Your task to perform on an android device: clear all cookies in the chrome app Image 0: 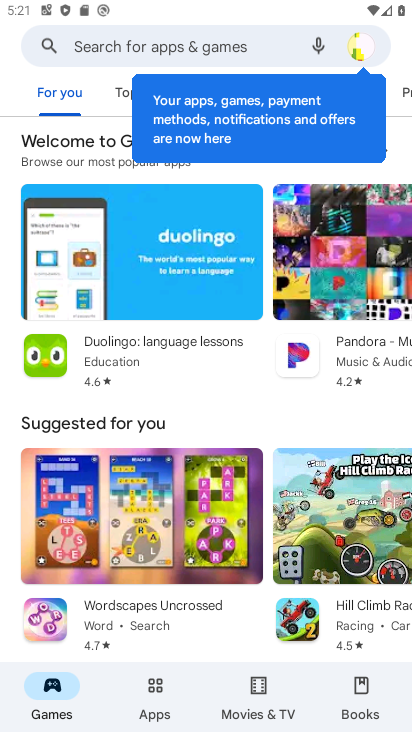
Step 0: press home button
Your task to perform on an android device: clear all cookies in the chrome app Image 1: 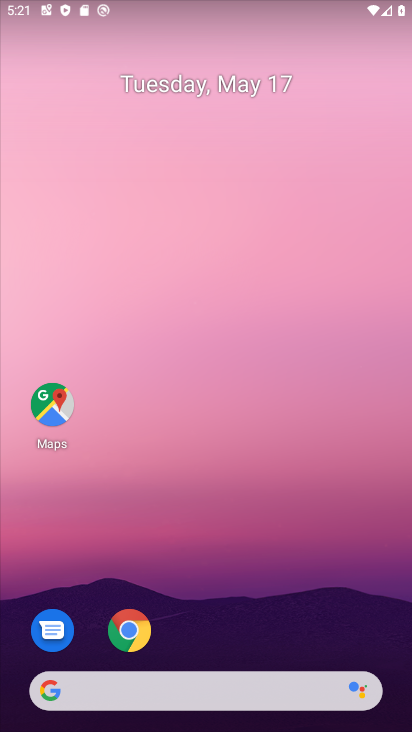
Step 1: click (142, 624)
Your task to perform on an android device: clear all cookies in the chrome app Image 2: 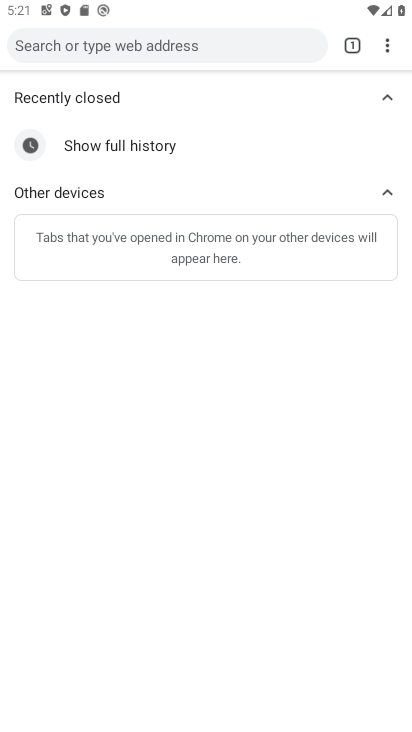
Step 2: drag from (387, 38) to (250, 250)
Your task to perform on an android device: clear all cookies in the chrome app Image 3: 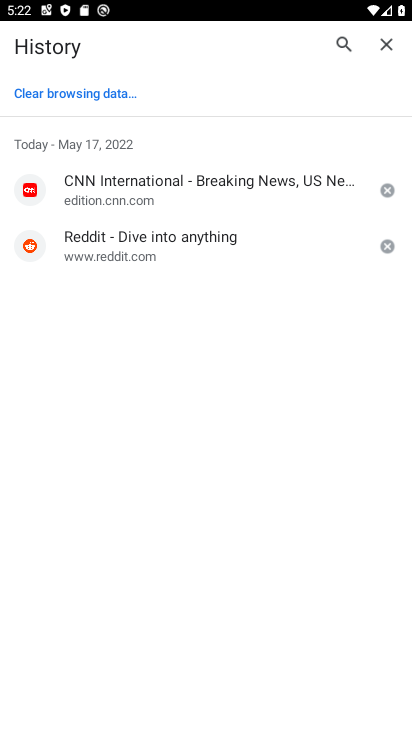
Step 3: click (97, 89)
Your task to perform on an android device: clear all cookies in the chrome app Image 4: 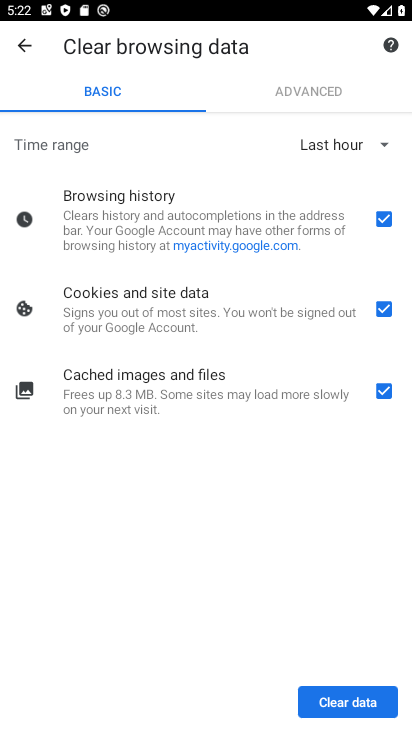
Step 4: click (344, 140)
Your task to perform on an android device: clear all cookies in the chrome app Image 5: 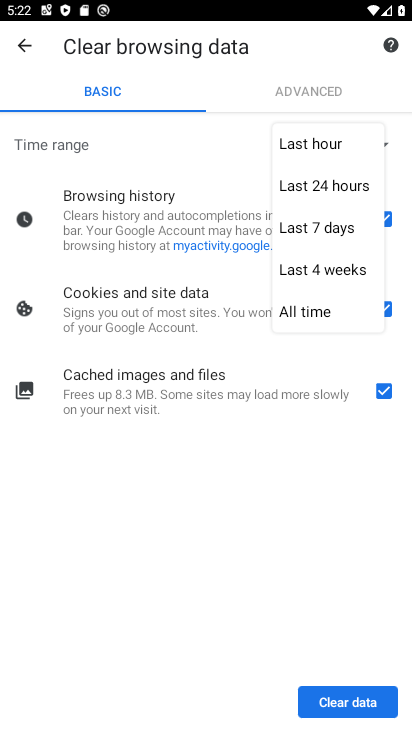
Step 5: click (312, 306)
Your task to perform on an android device: clear all cookies in the chrome app Image 6: 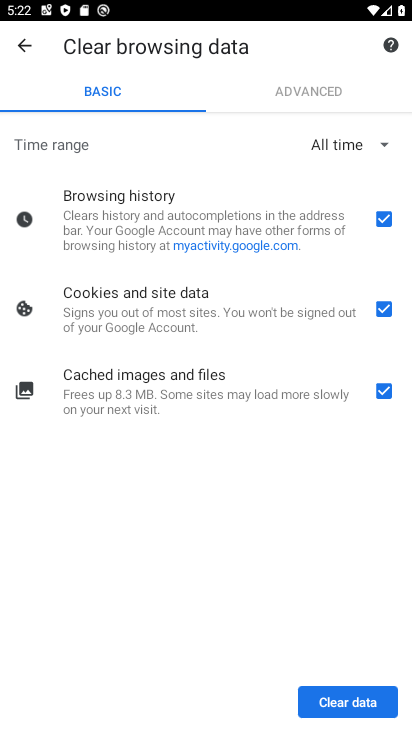
Step 6: click (333, 706)
Your task to perform on an android device: clear all cookies in the chrome app Image 7: 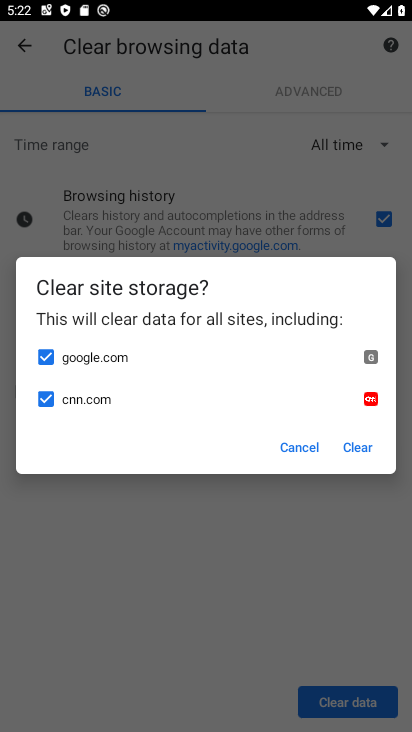
Step 7: click (355, 440)
Your task to perform on an android device: clear all cookies in the chrome app Image 8: 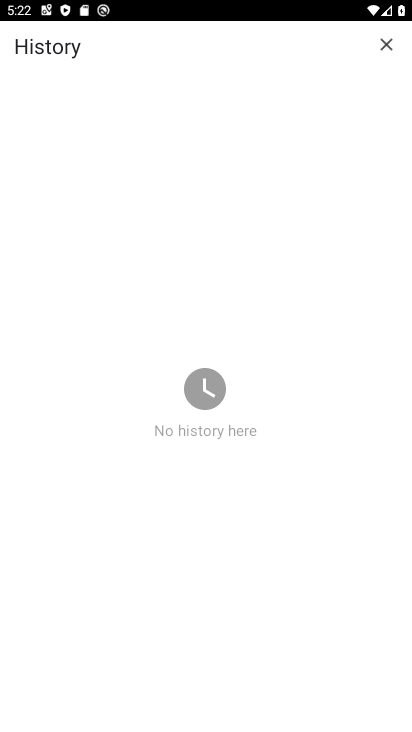
Step 8: task complete